Your task to perform on an android device: Open Yahoo.com Image 0: 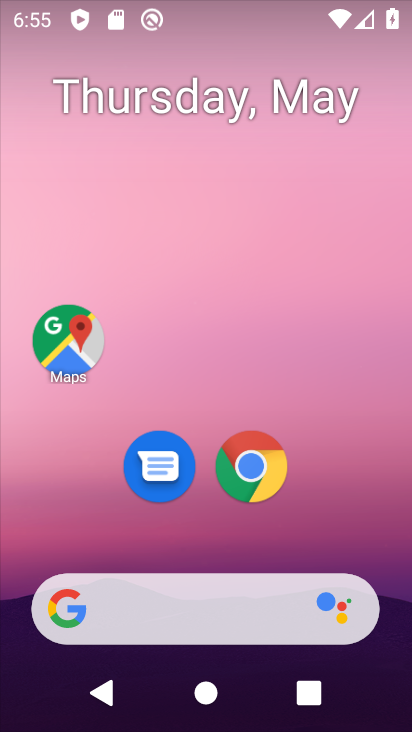
Step 0: click (252, 468)
Your task to perform on an android device: Open Yahoo.com Image 1: 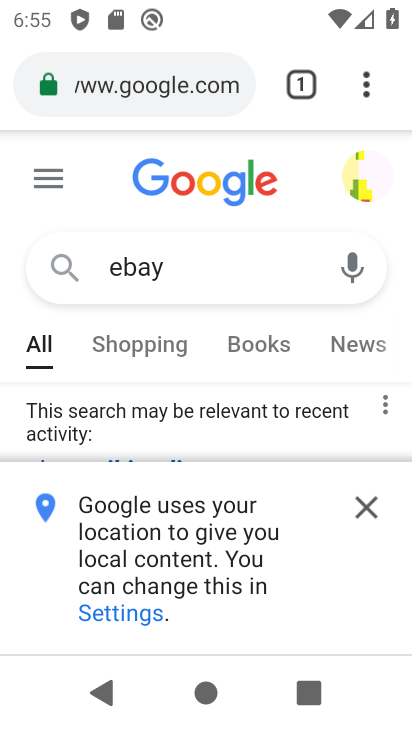
Step 1: click (368, 86)
Your task to perform on an android device: Open Yahoo.com Image 2: 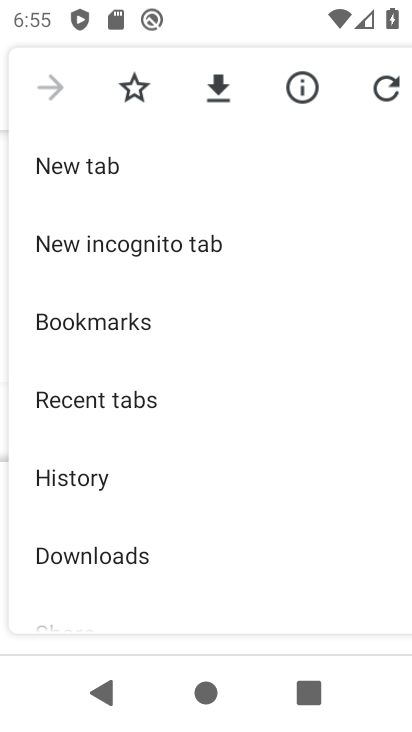
Step 2: click (71, 161)
Your task to perform on an android device: Open Yahoo.com Image 3: 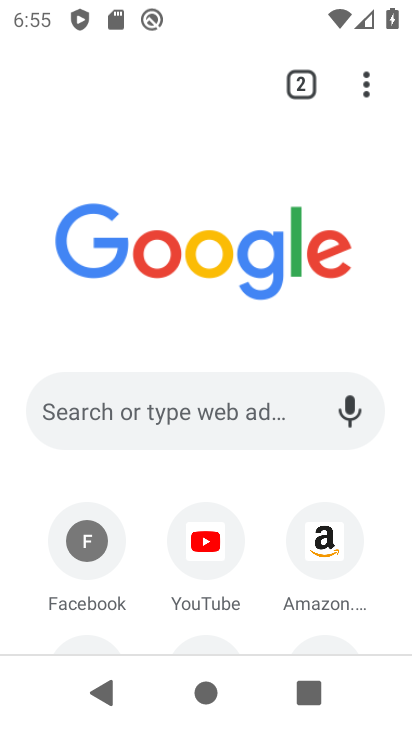
Step 3: drag from (155, 498) to (179, 18)
Your task to perform on an android device: Open Yahoo.com Image 4: 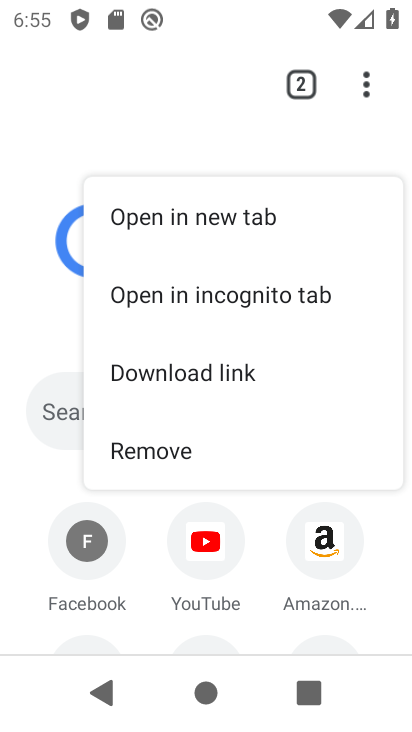
Step 4: click (46, 131)
Your task to perform on an android device: Open Yahoo.com Image 5: 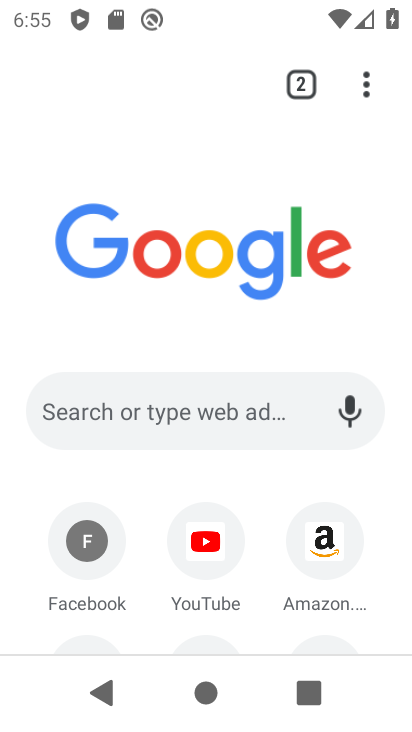
Step 5: drag from (327, 320) to (224, 11)
Your task to perform on an android device: Open Yahoo.com Image 6: 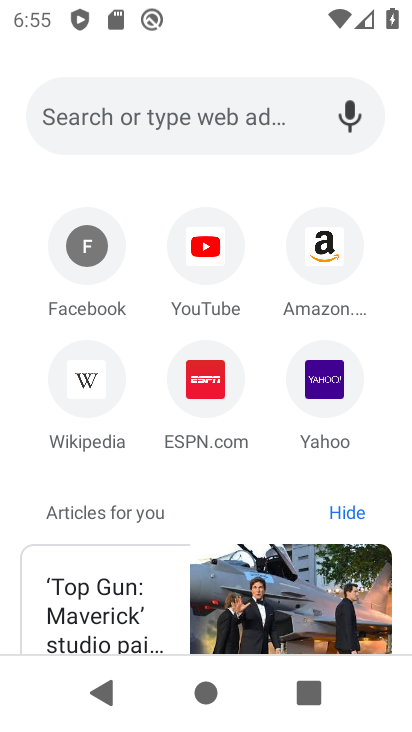
Step 6: click (324, 378)
Your task to perform on an android device: Open Yahoo.com Image 7: 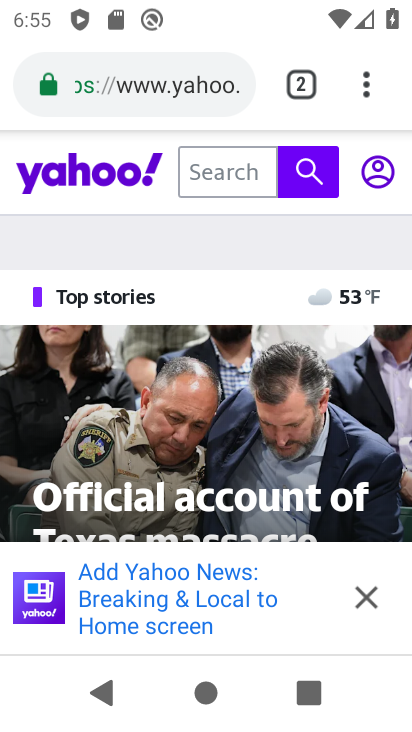
Step 7: task complete